Your task to perform on an android device: set default search engine in the chrome app Image 0: 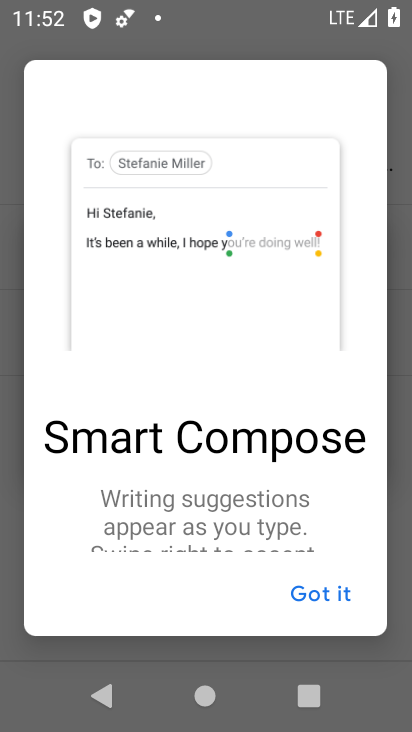
Step 0: press home button
Your task to perform on an android device: set default search engine in the chrome app Image 1: 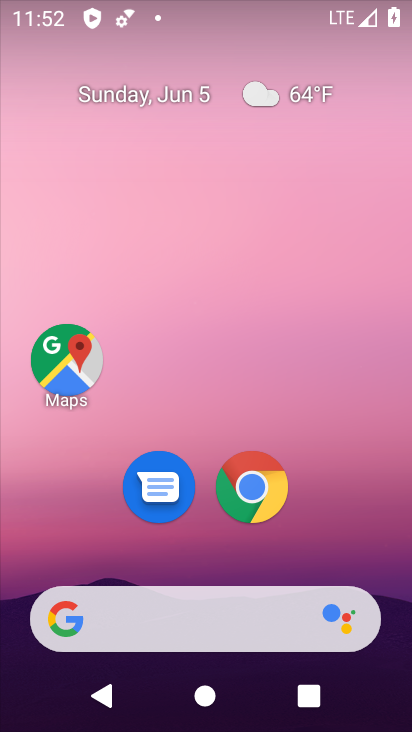
Step 1: drag from (357, 550) to (353, 121)
Your task to perform on an android device: set default search engine in the chrome app Image 2: 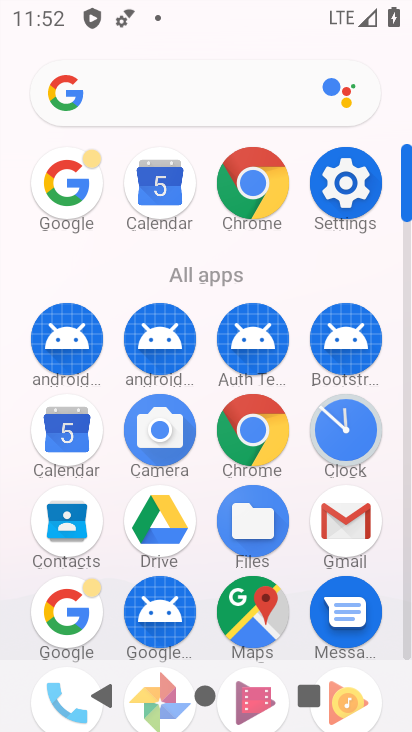
Step 2: click (265, 446)
Your task to perform on an android device: set default search engine in the chrome app Image 3: 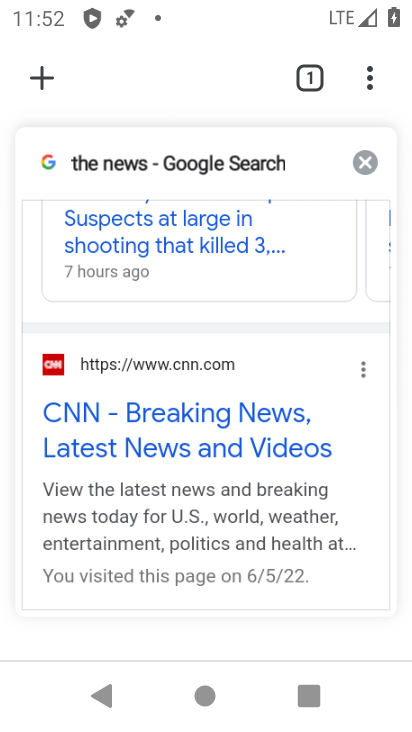
Step 3: drag from (373, 87) to (141, 301)
Your task to perform on an android device: set default search engine in the chrome app Image 4: 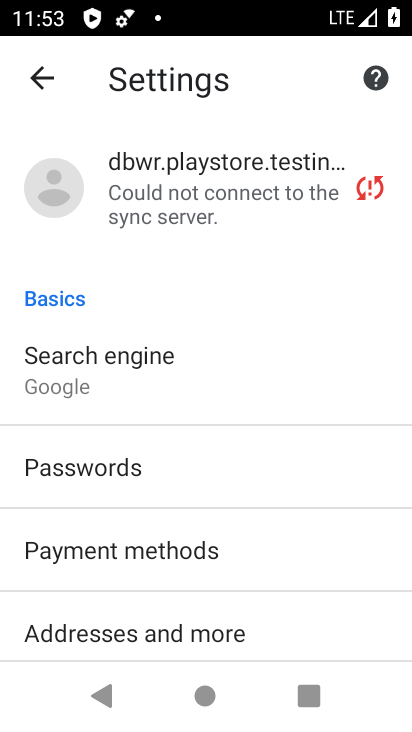
Step 4: click (135, 377)
Your task to perform on an android device: set default search engine in the chrome app Image 5: 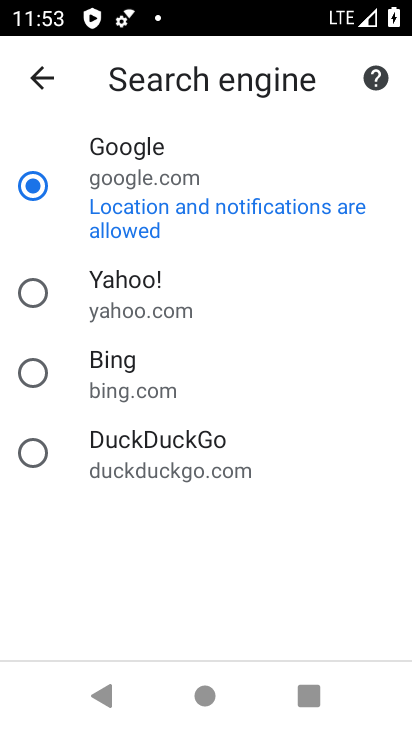
Step 5: click (134, 295)
Your task to perform on an android device: set default search engine in the chrome app Image 6: 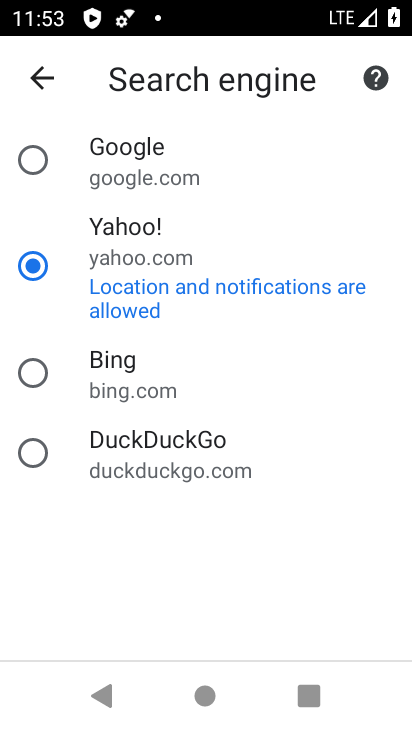
Step 6: task complete